Your task to perform on an android device: toggle javascript in the chrome app Image 0: 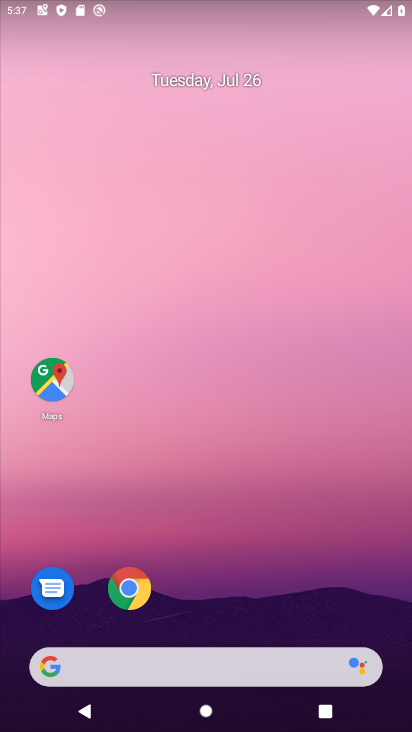
Step 0: drag from (244, 339) to (262, 44)
Your task to perform on an android device: toggle javascript in the chrome app Image 1: 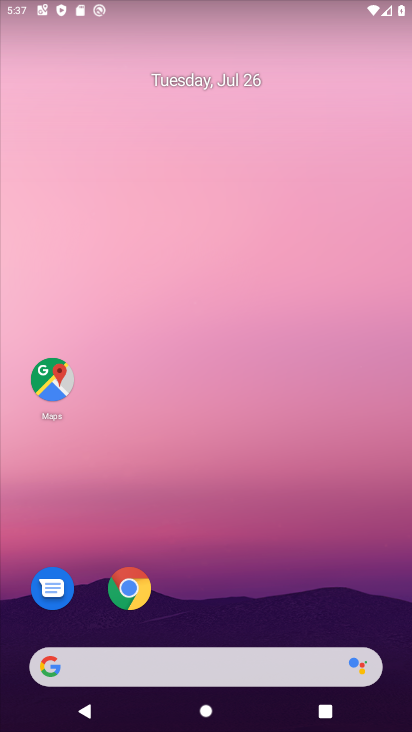
Step 1: drag from (206, 662) to (251, 51)
Your task to perform on an android device: toggle javascript in the chrome app Image 2: 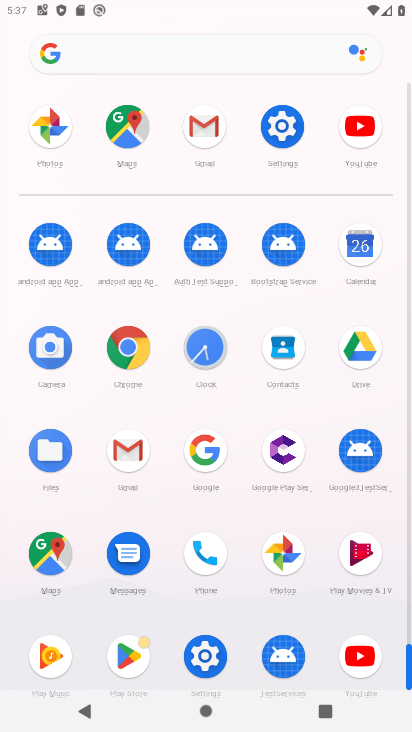
Step 2: click (137, 361)
Your task to perform on an android device: toggle javascript in the chrome app Image 3: 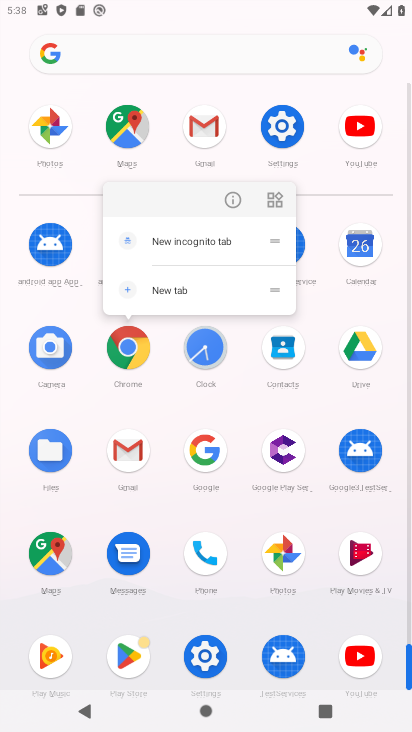
Step 3: click (130, 379)
Your task to perform on an android device: toggle javascript in the chrome app Image 4: 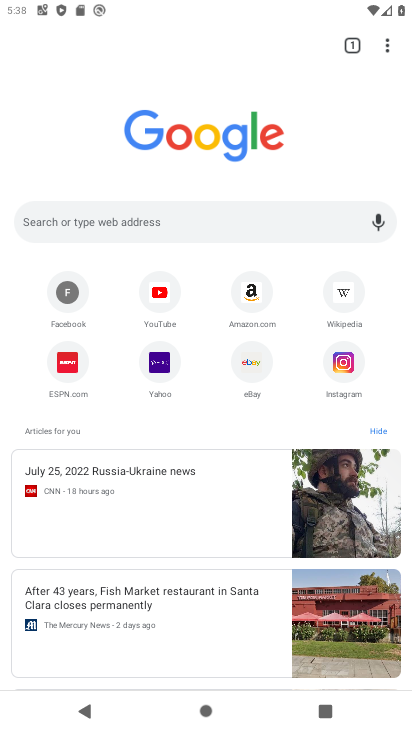
Step 4: click (390, 49)
Your task to perform on an android device: toggle javascript in the chrome app Image 5: 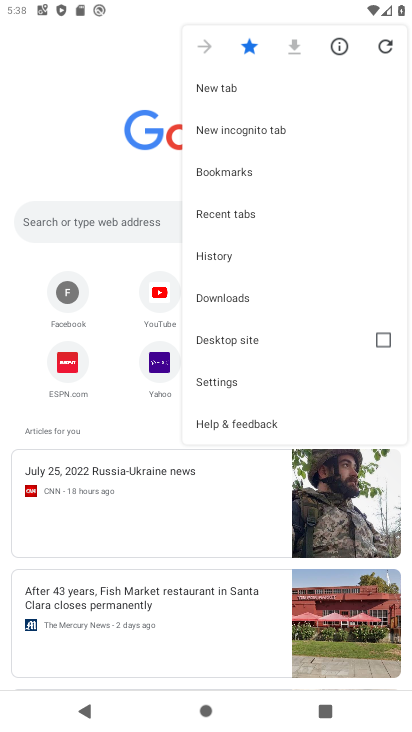
Step 5: click (210, 384)
Your task to perform on an android device: toggle javascript in the chrome app Image 6: 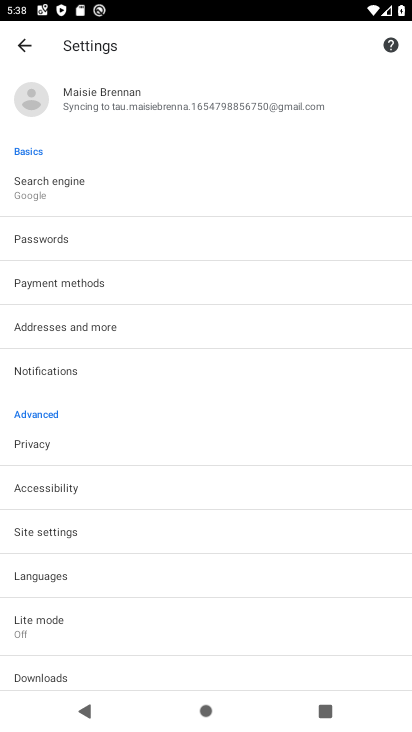
Step 6: click (47, 532)
Your task to perform on an android device: toggle javascript in the chrome app Image 7: 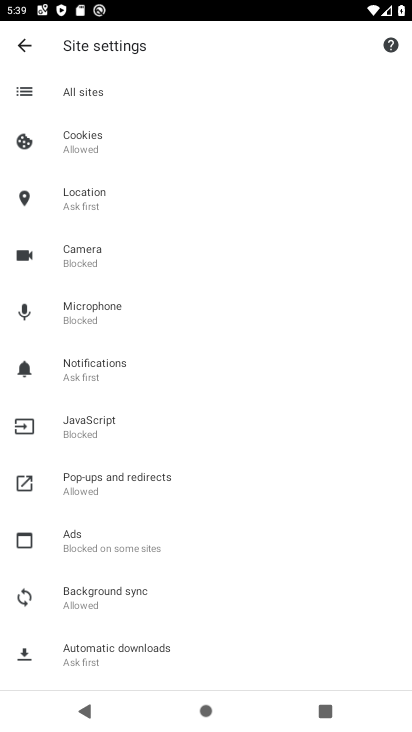
Step 7: click (94, 428)
Your task to perform on an android device: toggle javascript in the chrome app Image 8: 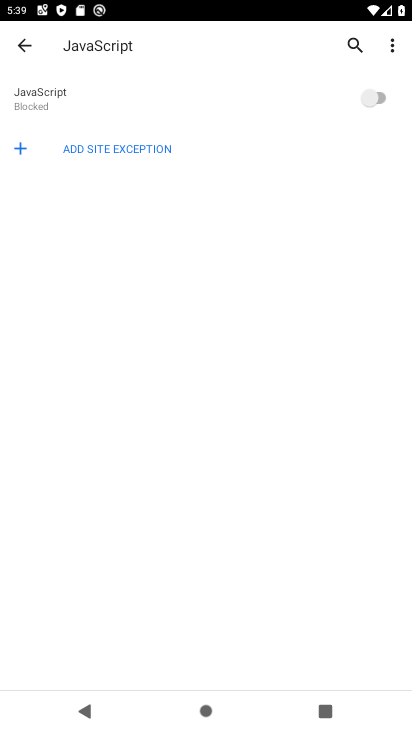
Step 8: click (379, 101)
Your task to perform on an android device: toggle javascript in the chrome app Image 9: 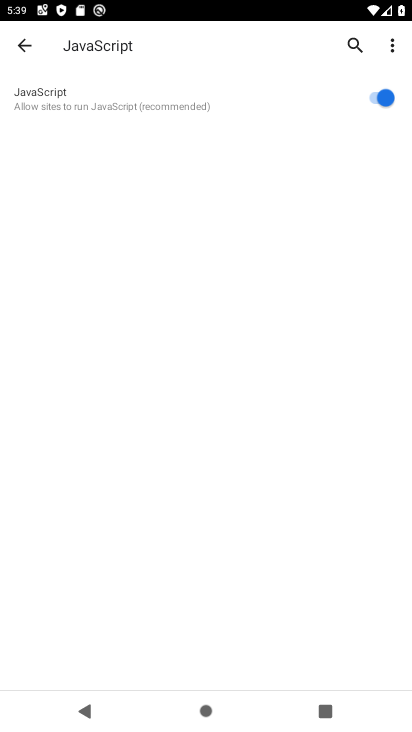
Step 9: task complete